Your task to perform on an android device: Show me the best rated coffee table on Ikea Image 0: 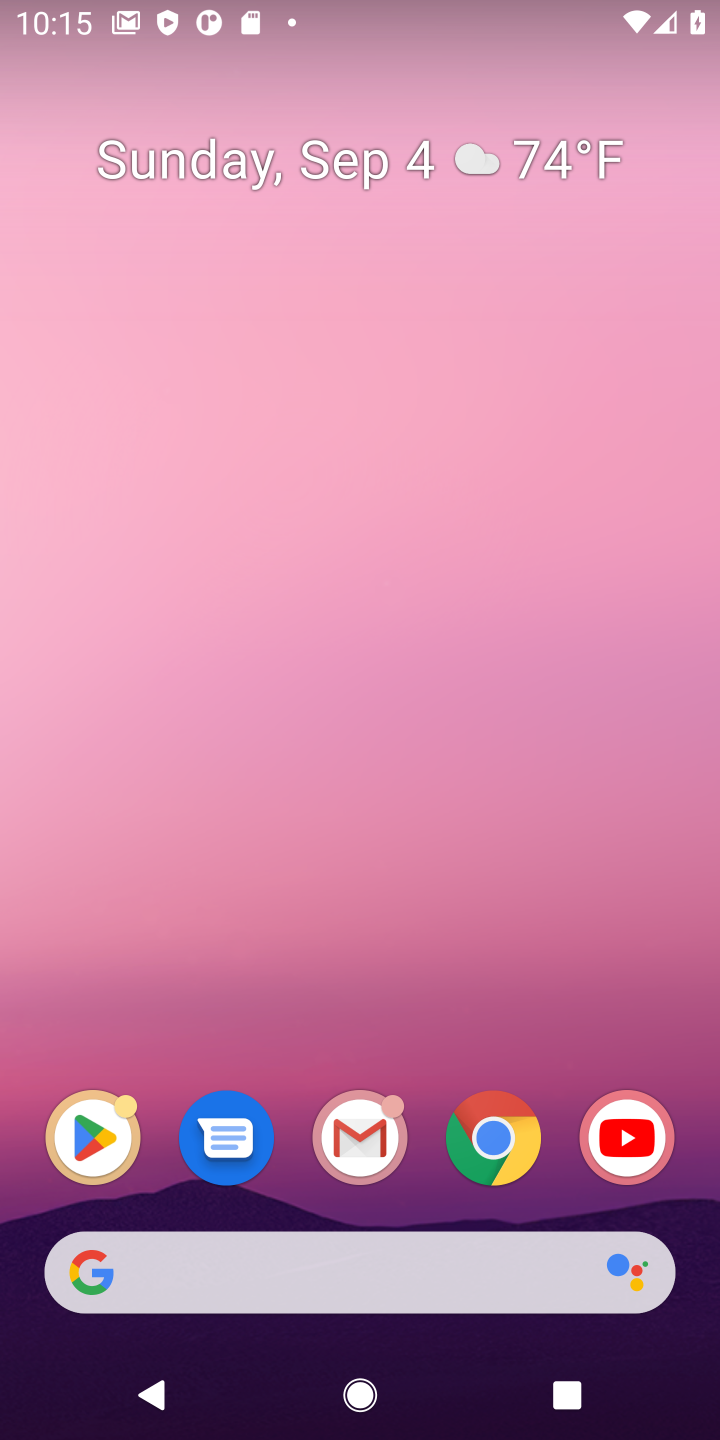
Step 0: click (510, 1149)
Your task to perform on an android device: Show me the best rated coffee table on Ikea Image 1: 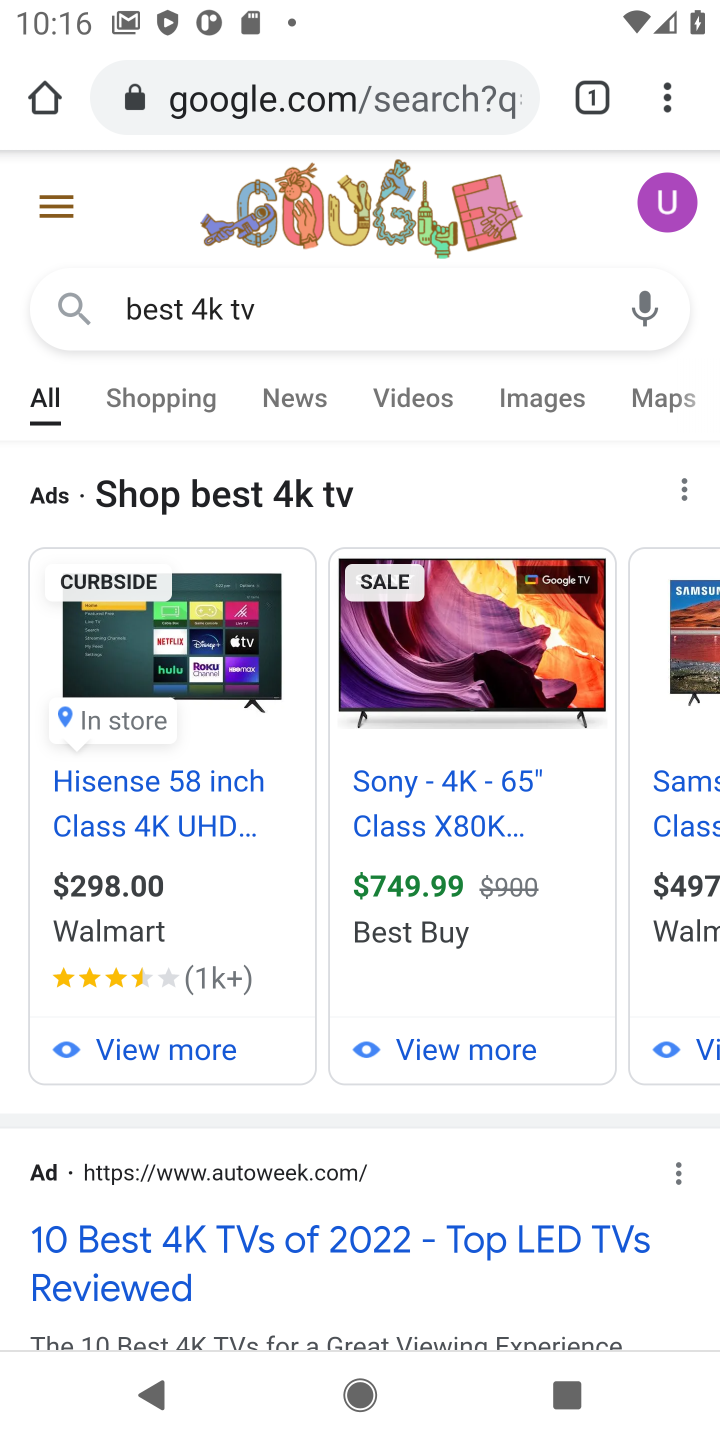
Step 1: click (447, 124)
Your task to perform on an android device: Show me the best rated coffee table on Ikea Image 2: 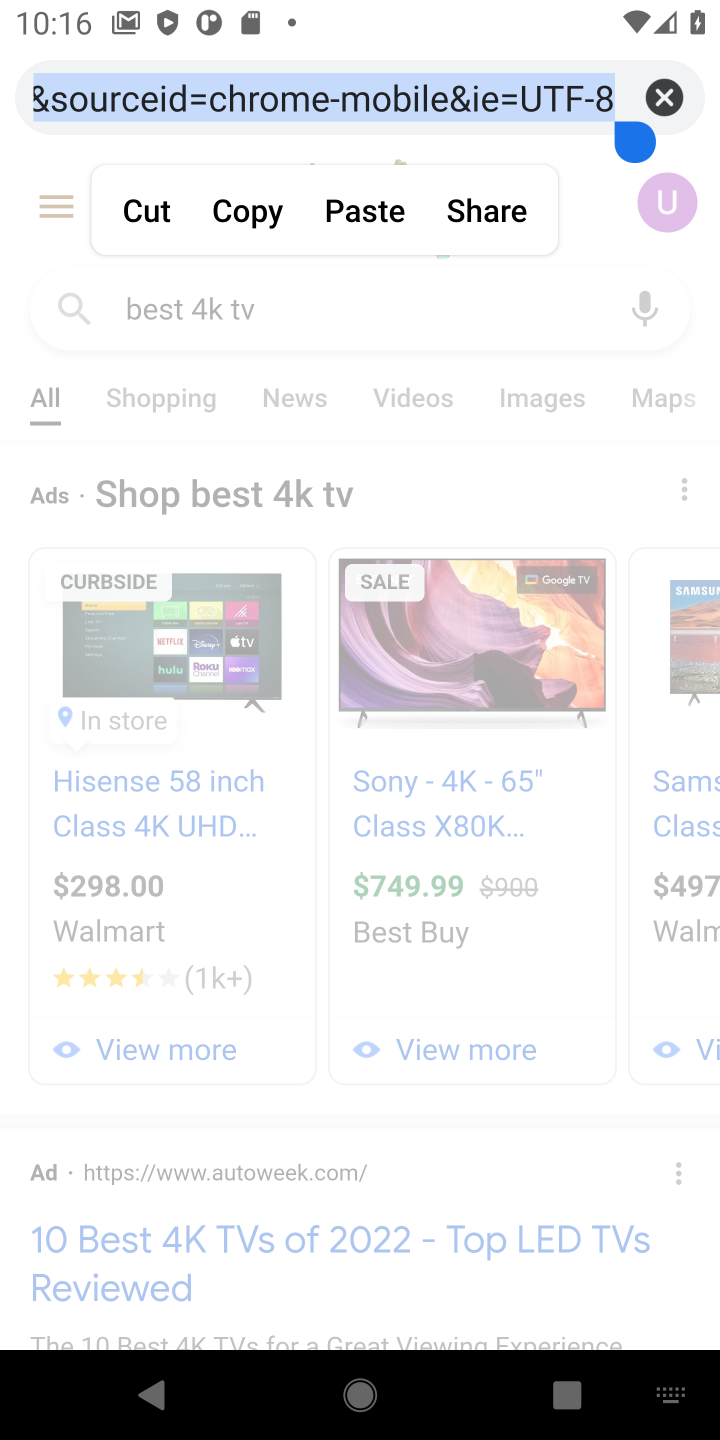
Step 2: type "best rated coffee table on ikea"
Your task to perform on an android device: Show me the best rated coffee table on Ikea Image 3: 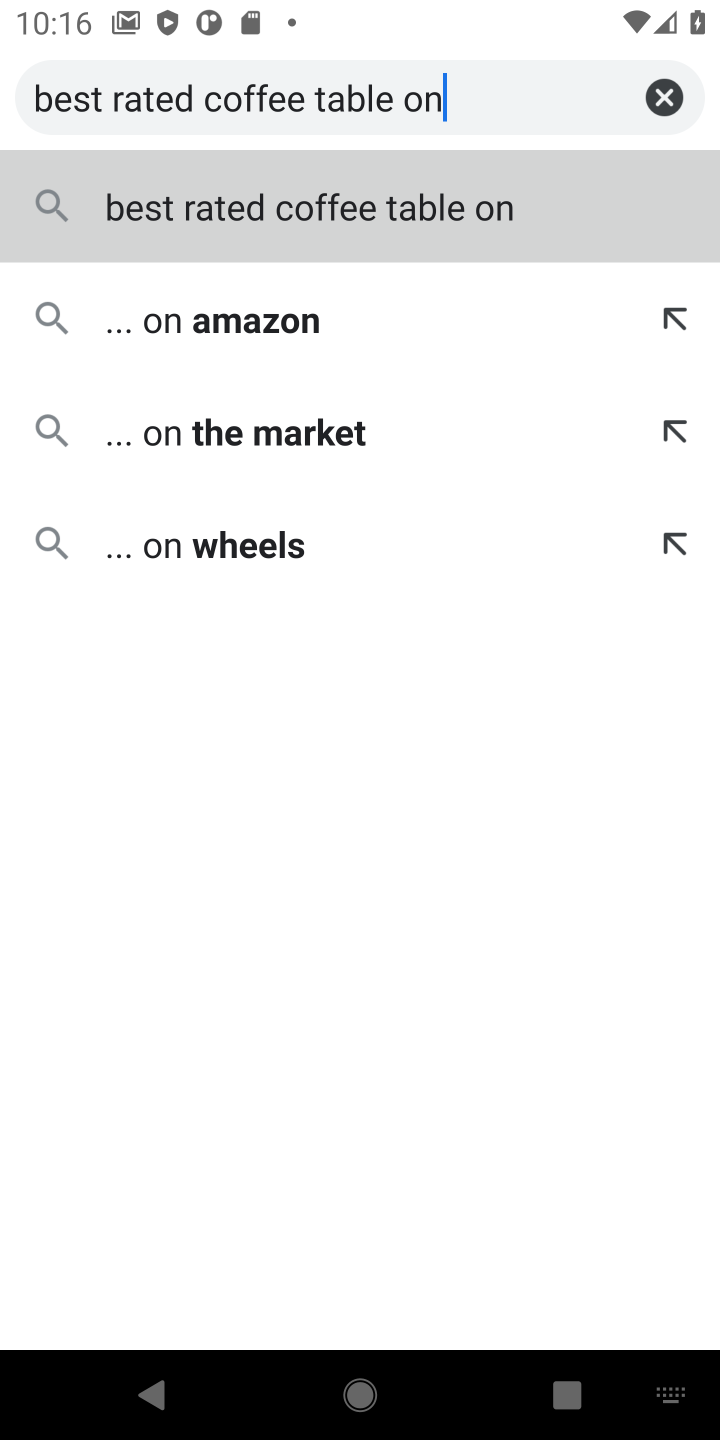
Step 3: type " ikea"
Your task to perform on an android device: Show me the best rated coffee table on Ikea Image 4: 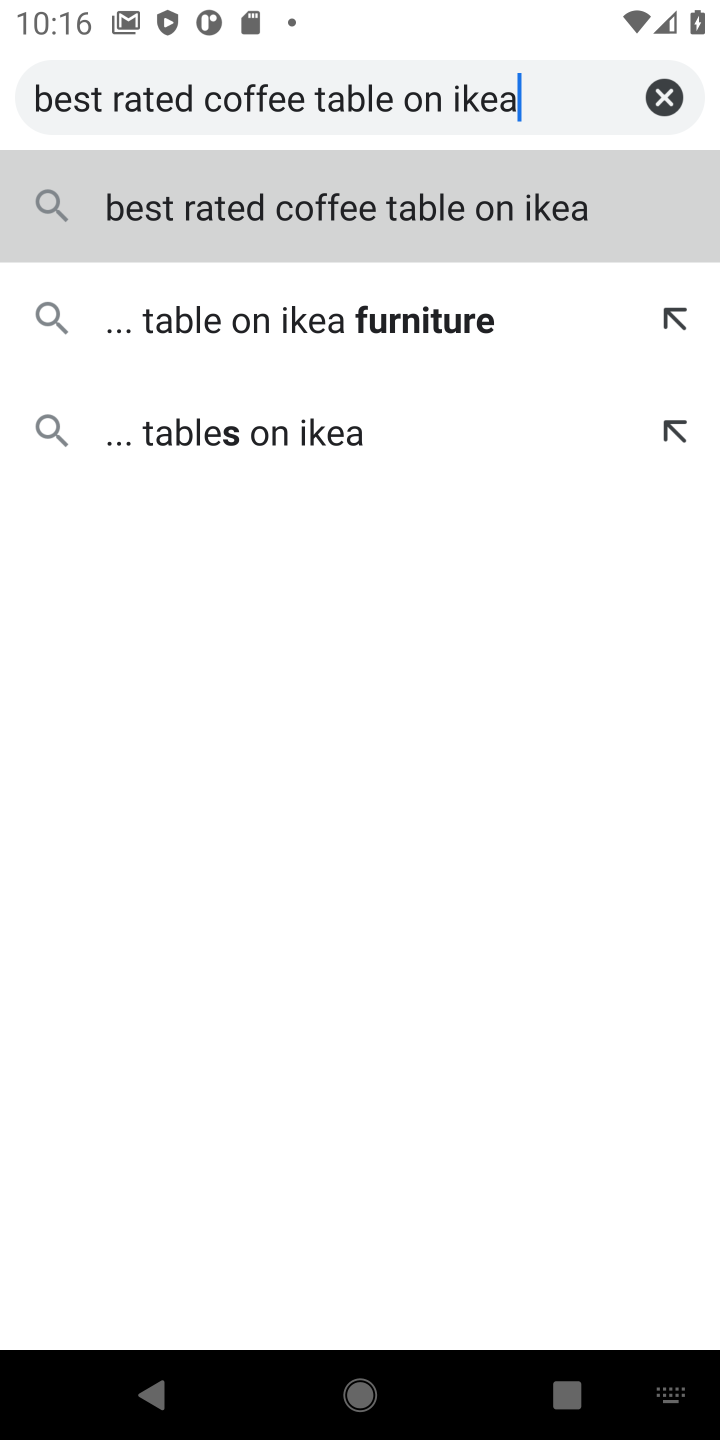
Step 4: click (463, 211)
Your task to perform on an android device: Show me the best rated coffee table on Ikea Image 5: 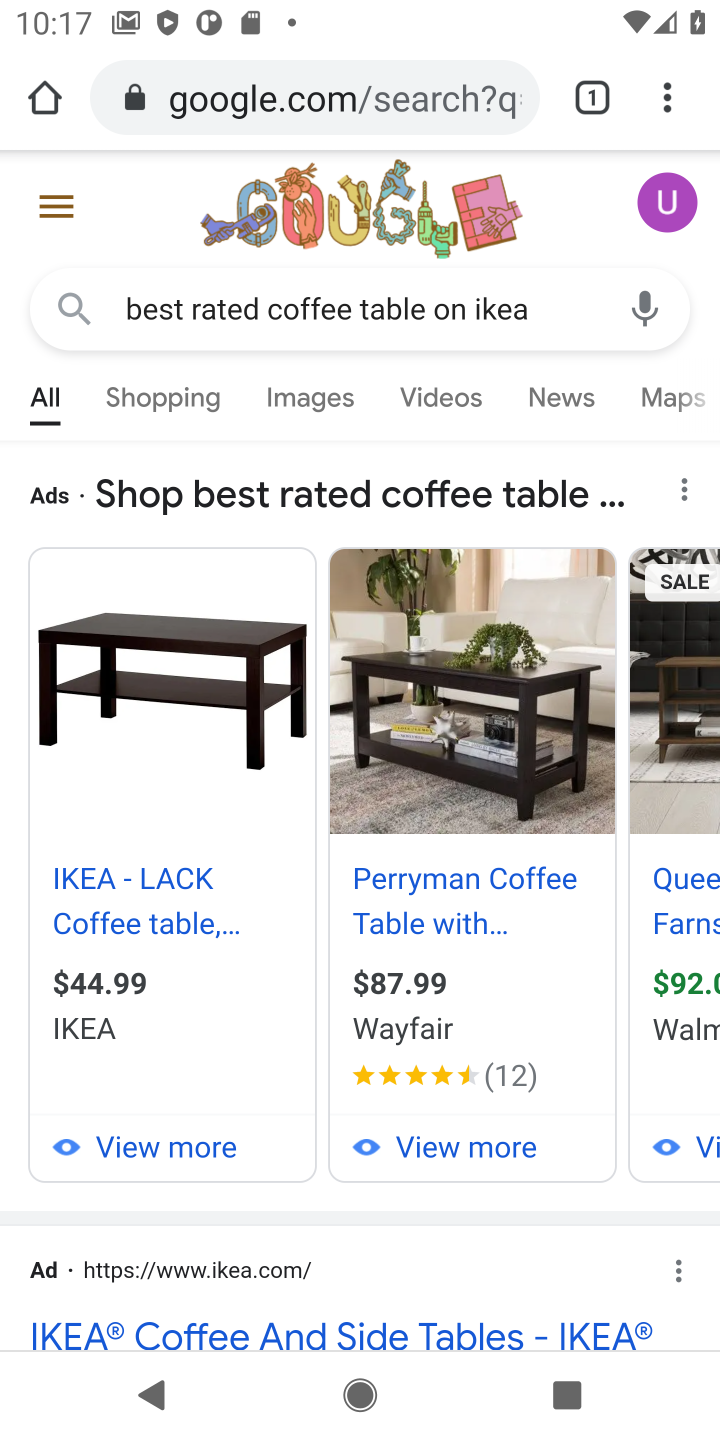
Step 5: click (390, 1330)
Your task to perform on an android device: Show me the best rated coffee table on Ikea Image 6: 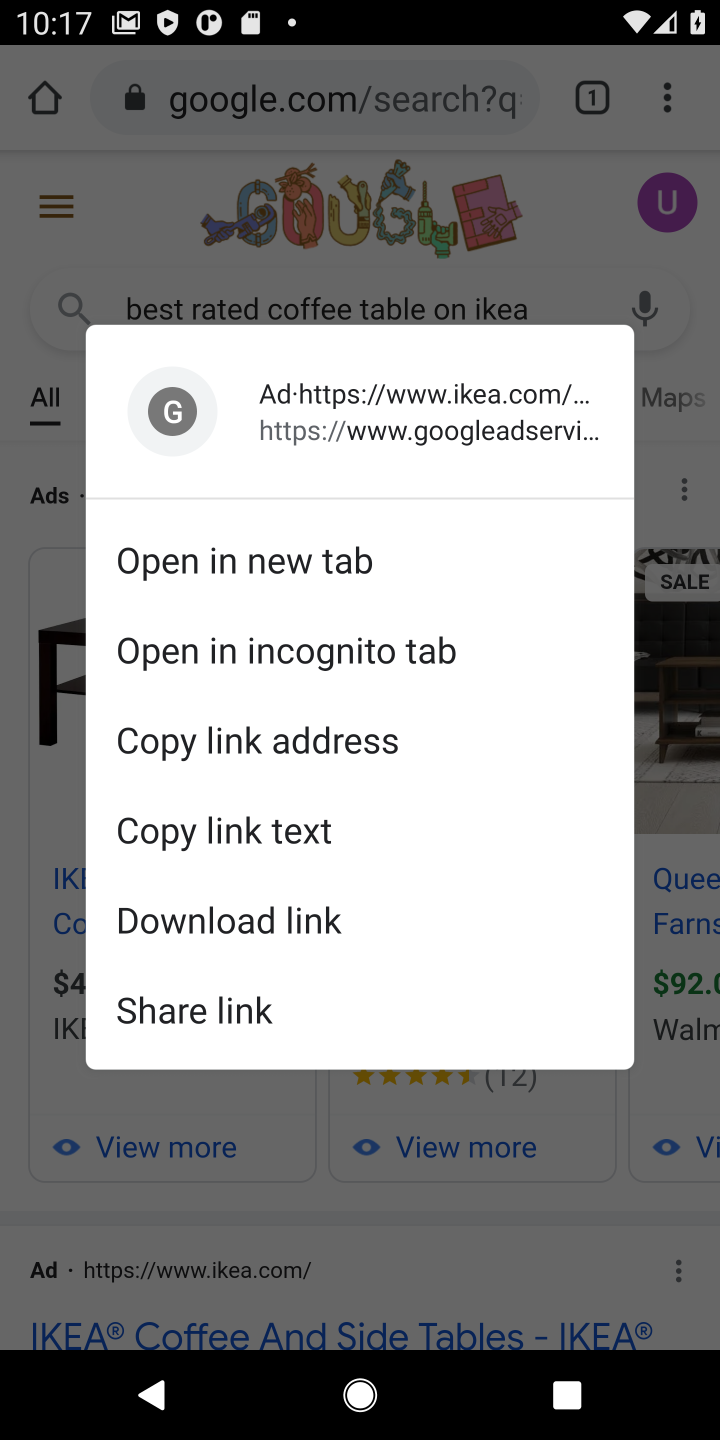
Step 6: click (390, 1330)
Your task to perform on an android device: Show me the best rated coffee table on Ikea Image 7: 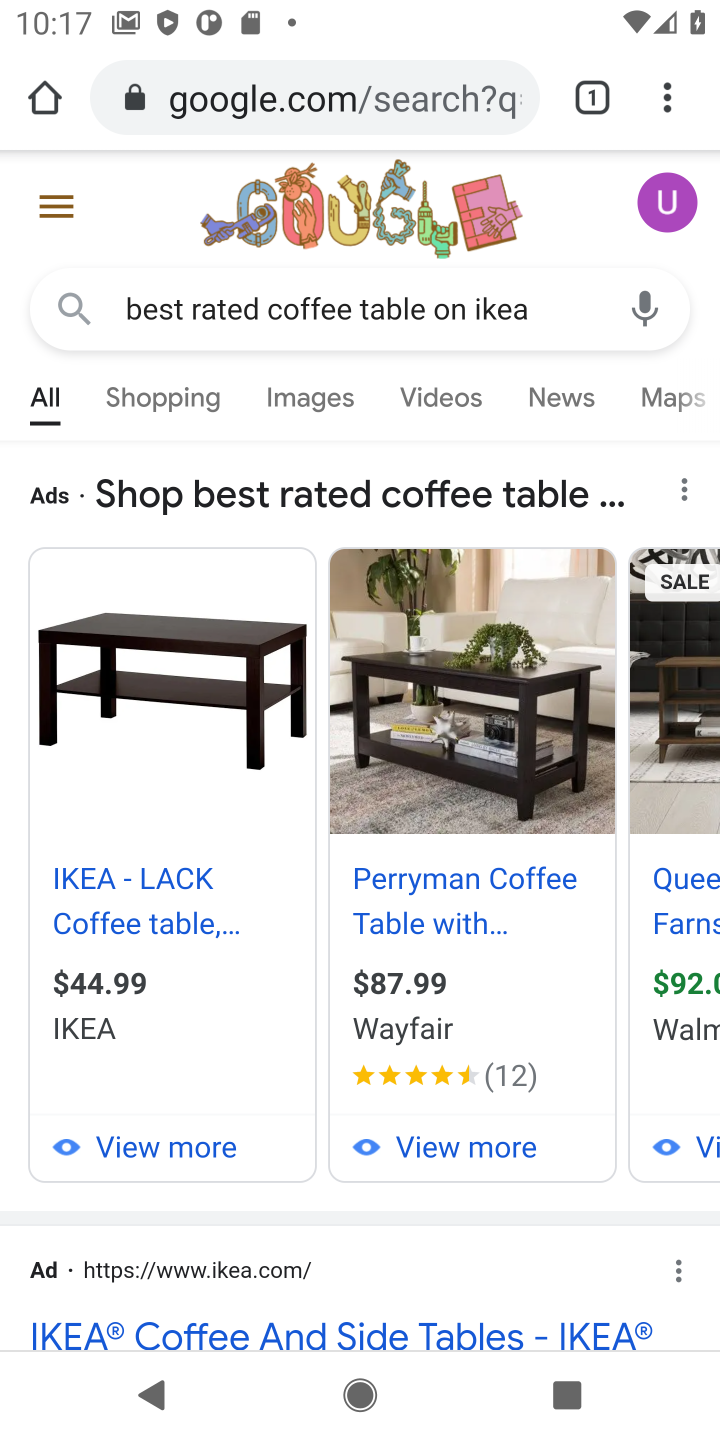
Step 7: click (390, 1330)
Your task to perform on an android device: Show me the best rated coffee table on Ikea Image 8: 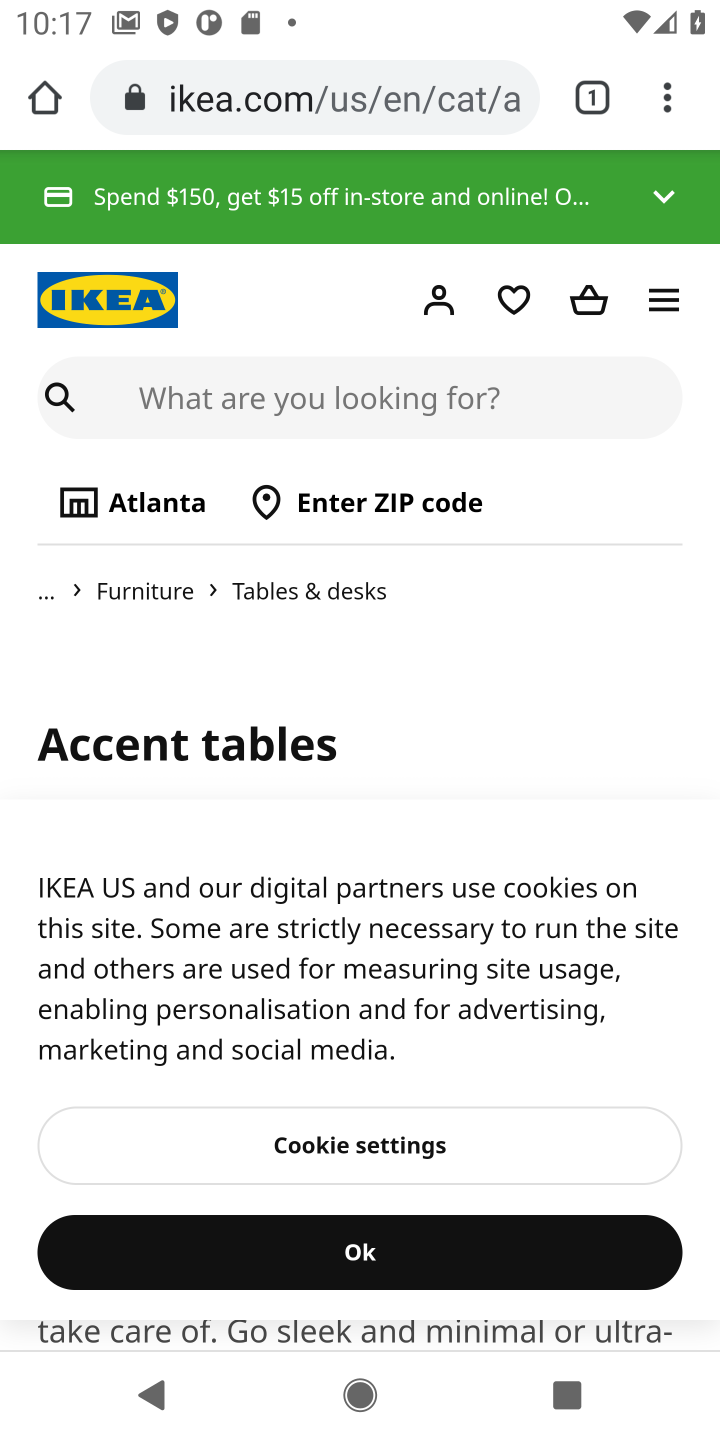
Step 8: click (347, 1237)
Your task to perform on an android device: Show me the best rated coffee table on Ikea Image 9: 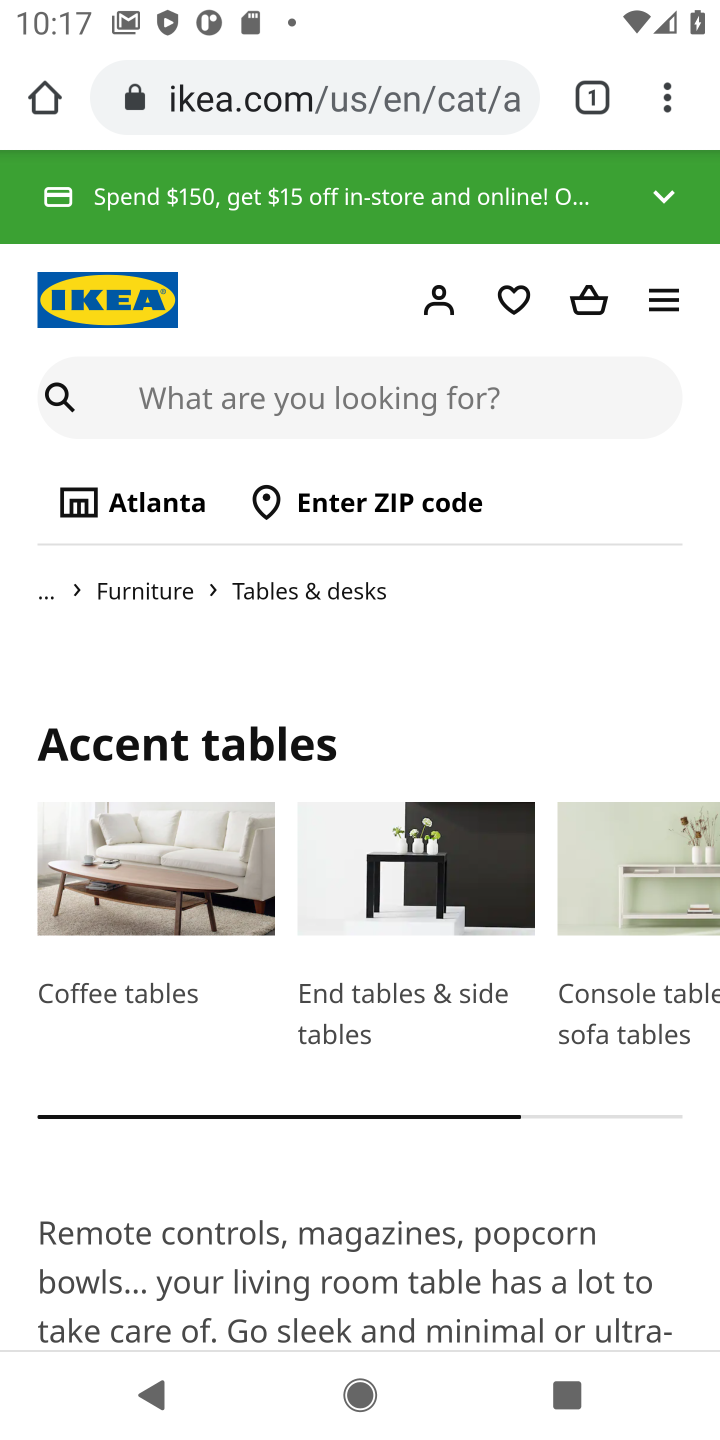
Step 9: task complete